Your task to perform on an android device: turn on showing notifications on the lock screen Image 0: 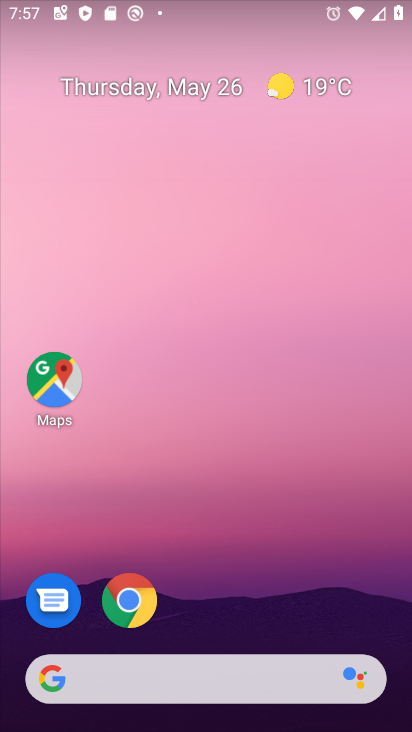
Step 0: drag from (291, 607) to (256, 207)
Your task to perform on an android device: turn on showing notifications on the lock screen Image 1: 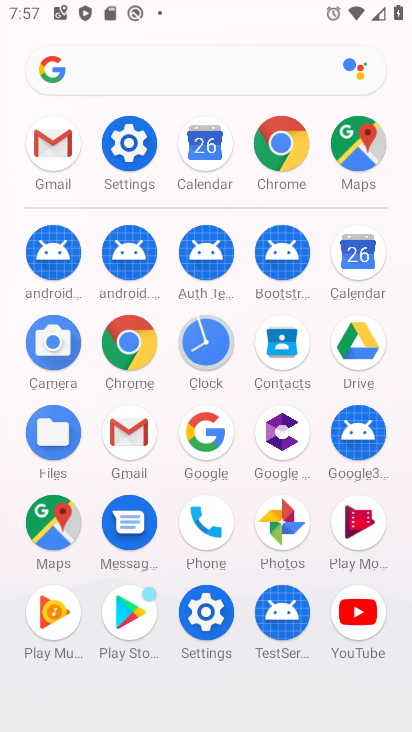
Step 1: click (139, 157)
Your task to perform on an android device: turn on showing notifications on the lock screen Image 2: 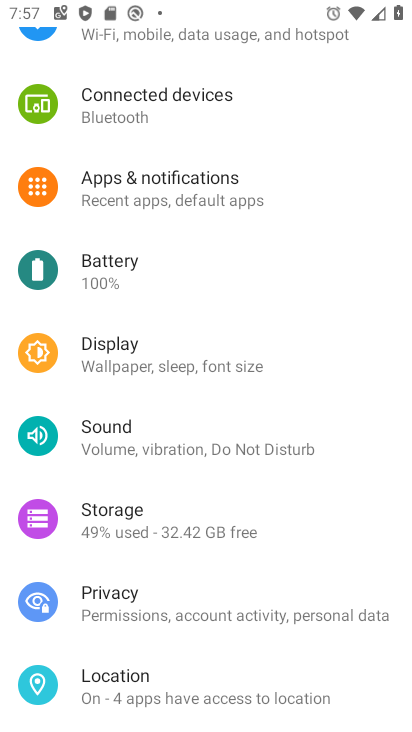
Step 2: click (168, 191)
Your task to perform on an android device: turn on showing notifications on the lock screen Image 3: 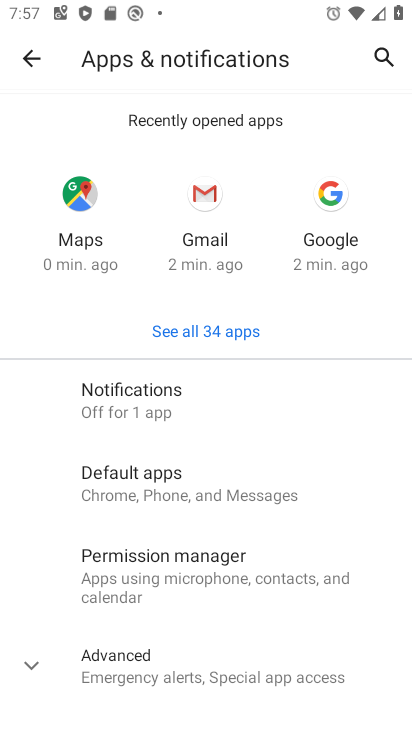
Step 3: click (135, 397)
Your task to perform on an android device: turn on showing notifications on the lock screen Image 4: 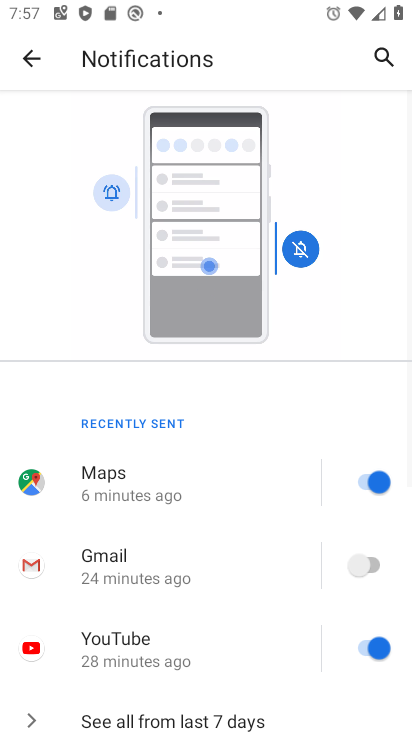
Step 4: drag from (261, 406) to (230, 81)
Your task to perform on an android device: turn on showing notifications on the lock screen Image 5: 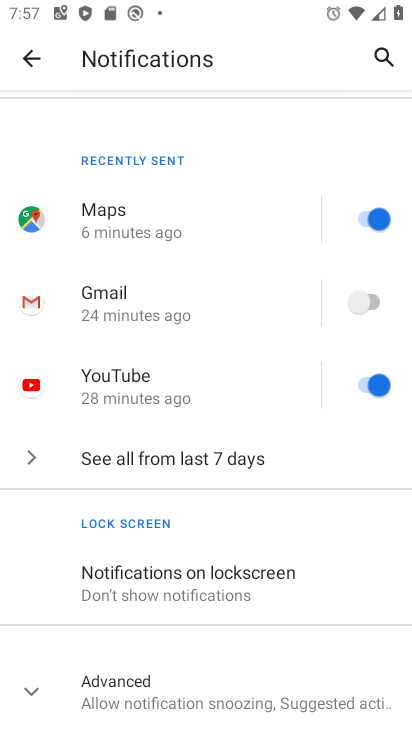
Step 5: click (211, 586)
Your task to perform on an android device: turn on showing notifications on the lock screen Image 6: 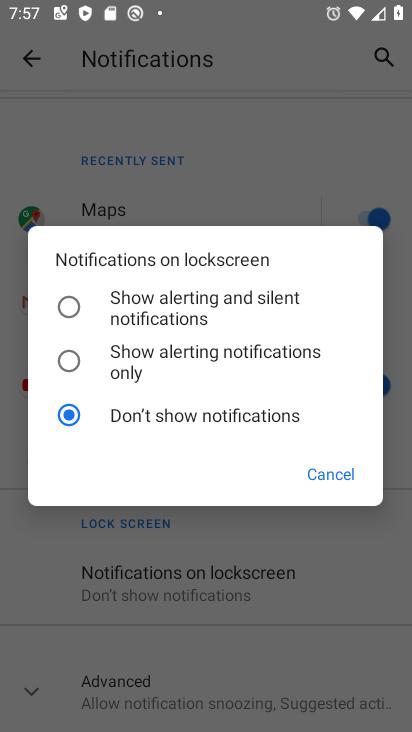
Step 6: click (65, 318)
Your task to perform on an android device: turn on showing notifications on the lock screen Image 7: 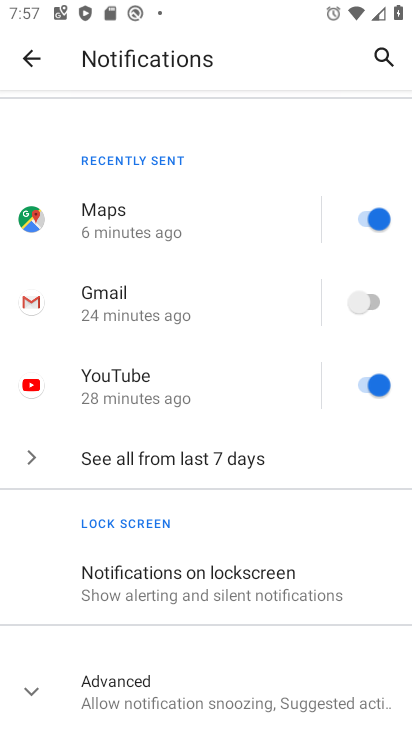
Step 7: task complete